Your task to perform on an android device: clear history in the chrome app Image 0: 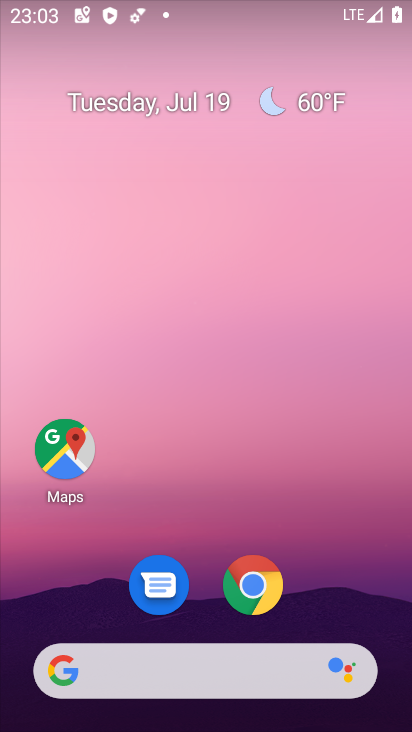
Step 0: click (265, 594)
Your task to perform on an android device: clear history in the chrome app Image 1: 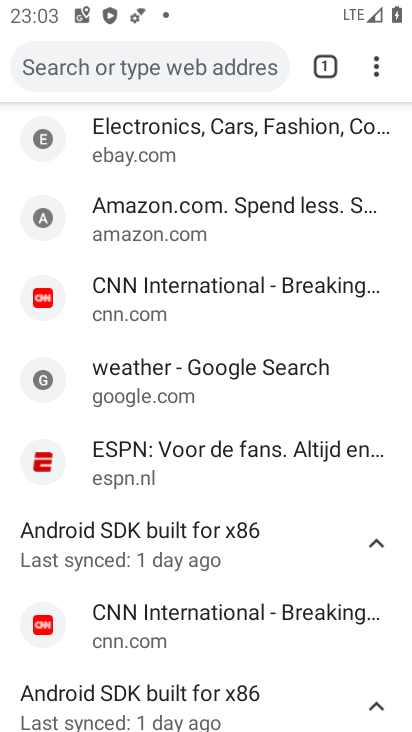
Step 1: click (375, 59)
Your task to perform on an android device: clear history in the chrome app Image 2: 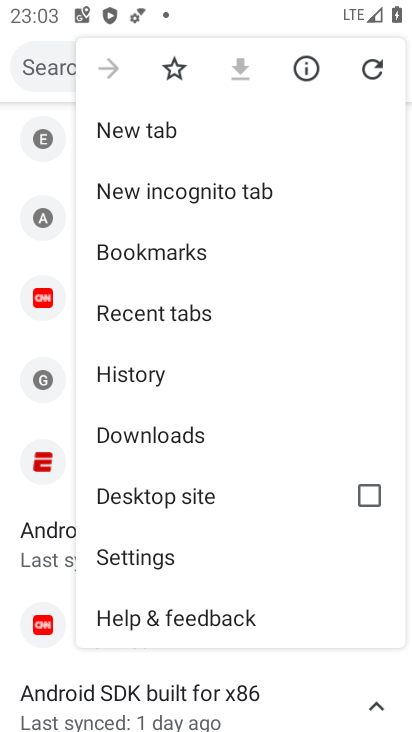
Step 2: click (137, 363)
Your task to perform on an android device: clear history in the chrome app Image 3: 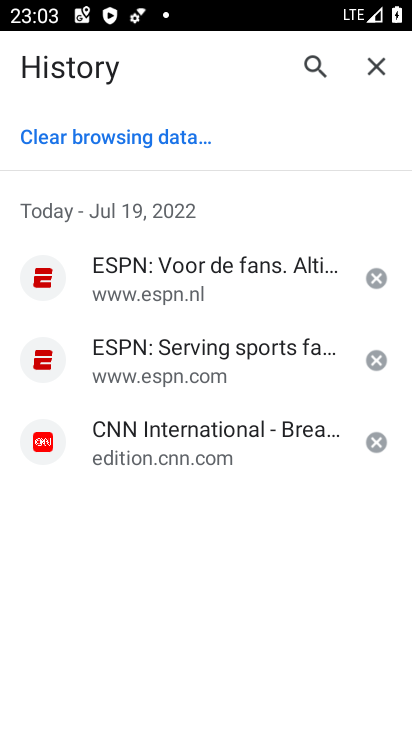
Step 3: click (141, 143)
Your task to perform on an android device: clear history in the chrome app Image 4: 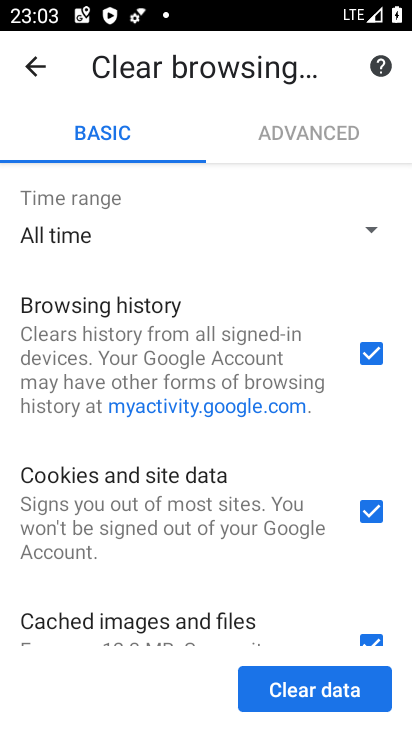
Step 4: click (319, 694)
Your task to perform on an android device: clear history in the chrome app Image 5: 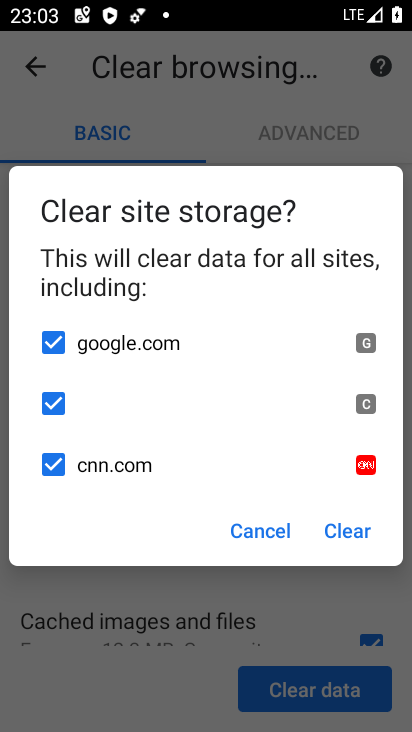
Step 5: click (364, 527)
Your task to perform on an android device: clear history in the chrome app Image 6: 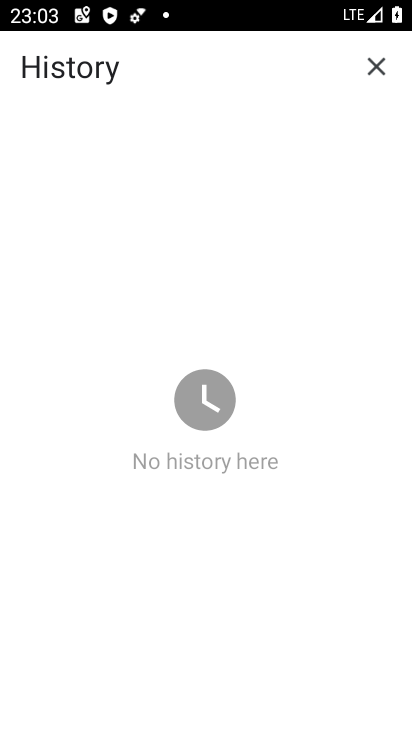
Step 6: task complete